Your task to perform on an android device: Go to wifi settings Image 0: 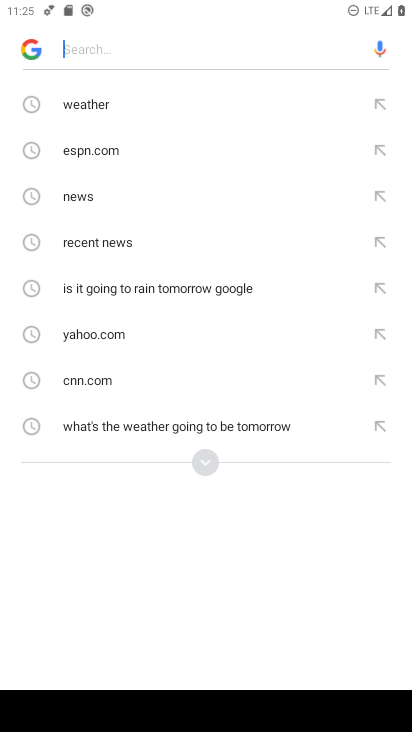
Step 0: press home button
Your task to perform on an android device: Go to wifi settings Image 1: 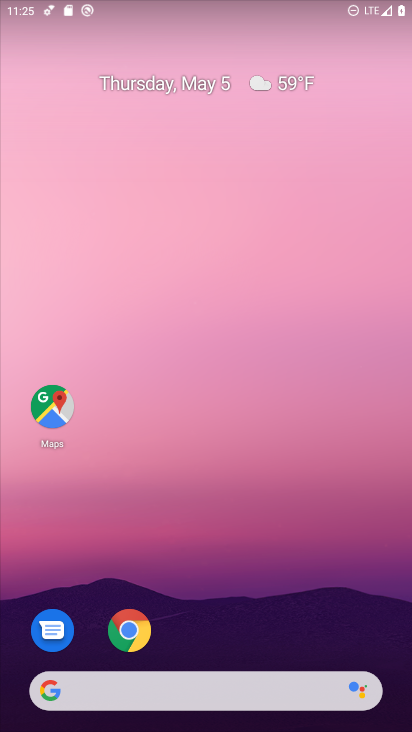
Step 1: drag from (264, 575) to (314, 82)
Your task to perform on an android device: Go to wifi settings Image 2: 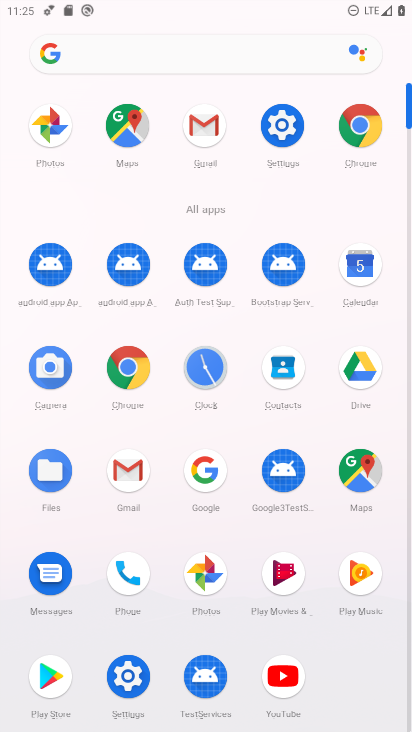
Step 2: click (288, 122)
Your task to perform on an android device: Go to wifi settings Image 3: 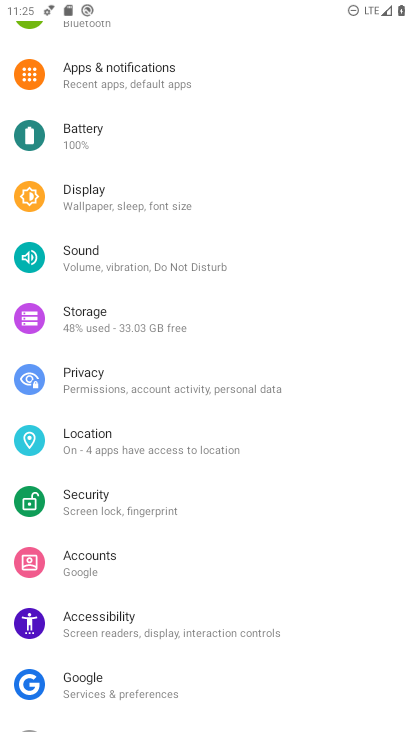
Step 3: drag from (288, 122) to (258, 547)
Your task to perform on an android device: Go to wifi settings Image 4: 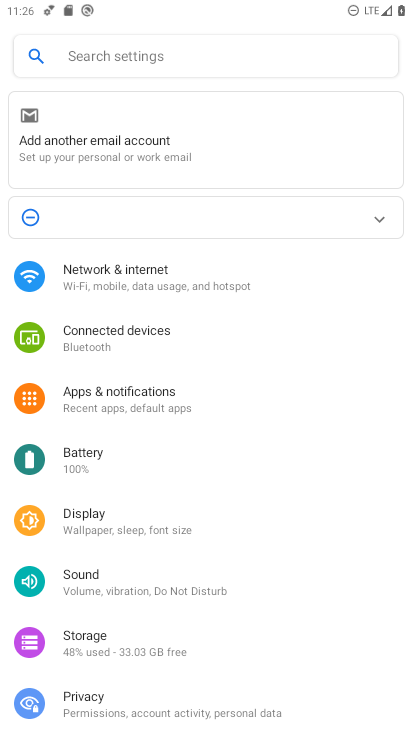
Step 4: click (214, 276)
Your task to perform on an android device: Go to wifi settings Image 5: 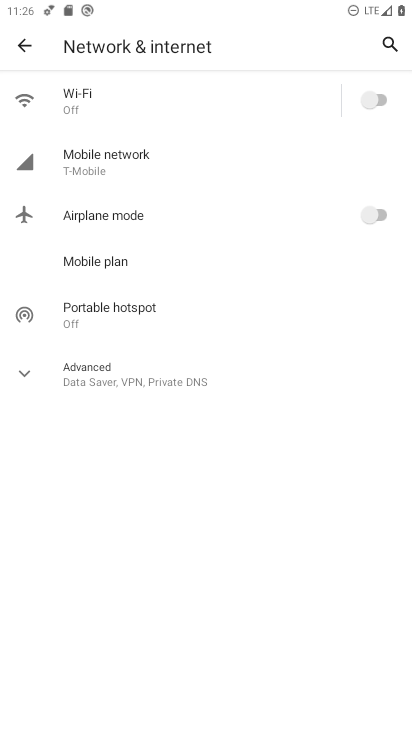
Step 5: click (129, 100)
Your task to perform on an android device: Go to wifi settings Image 6: 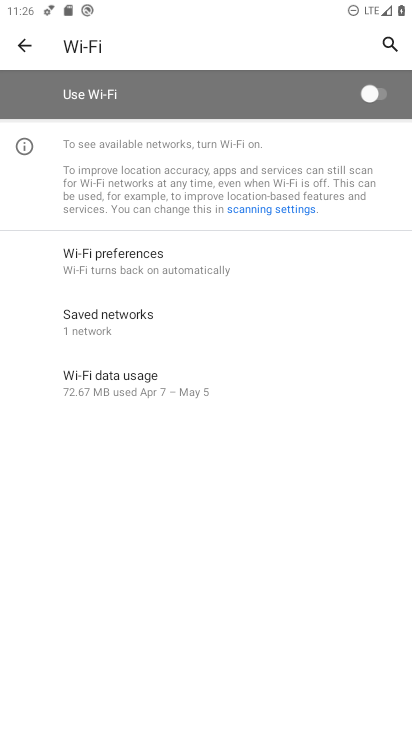
Step 6: click (384, 94)
Your task to perform on an android device: Go to wifi settings Image 7: 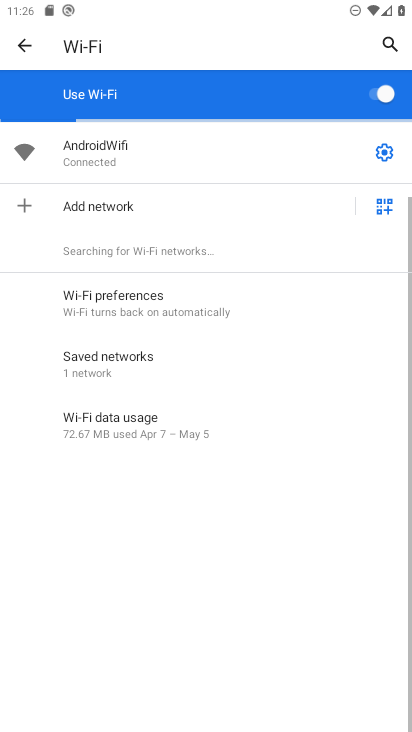
Step 7: click (393, 134)
Your task to perform on an android device: Go to wifi settings Image 8: 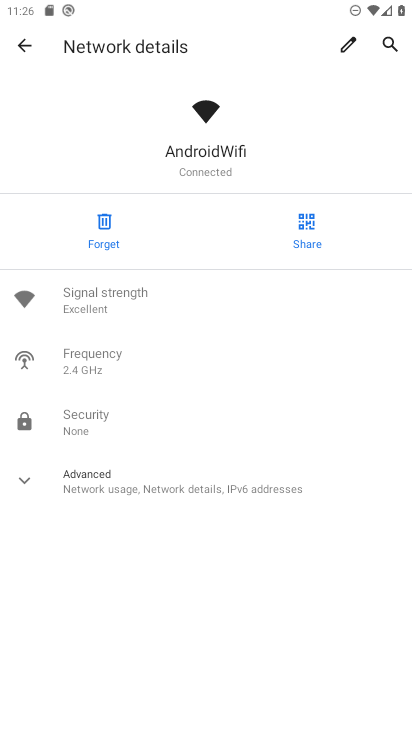
Step 8: task complete